Your task to perform on an android device: Go to eBay Image 0: 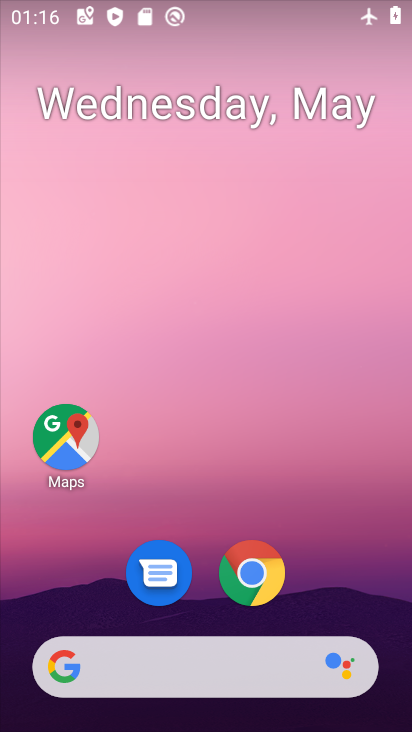
Step 0: click (269, 578)
Your task to perform on an android device: Go to eBay Image 1: 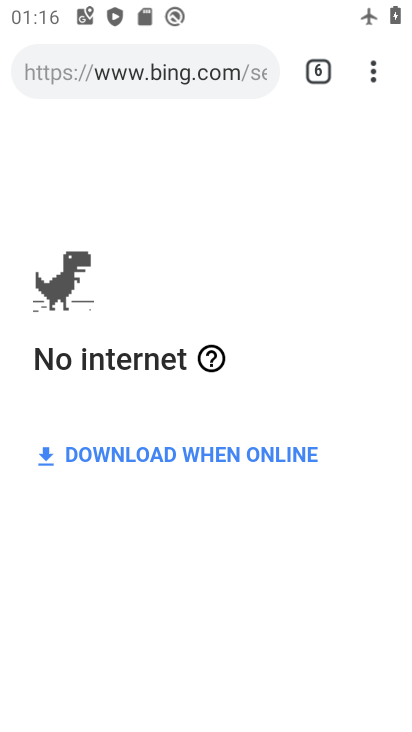
Step 1: click (372, 62)
Your task to perform on an android device: Go to eBay Image 2: 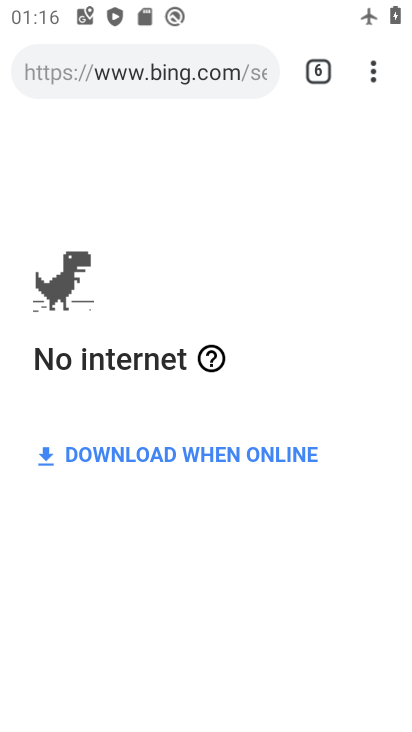
Step 2: click (371, 66)
Your task to perform on an android device: Go to eBay Image 3: 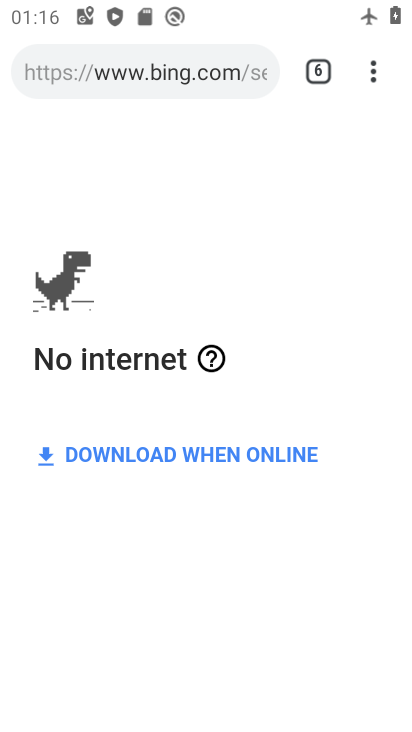
Step 3: click (347, 68)
Your task to perform on an android device: Go to eBay Image 4: 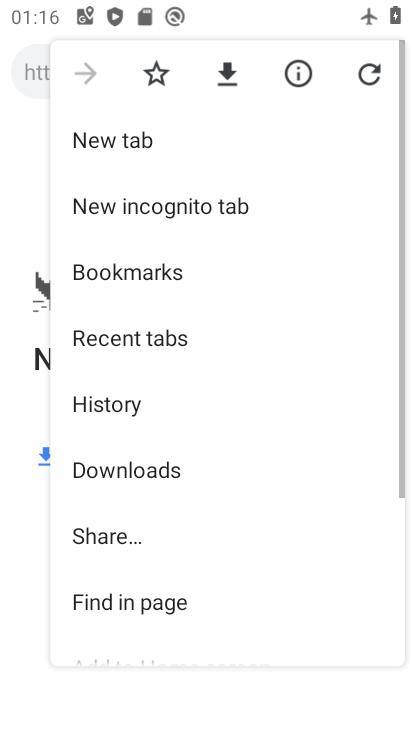
Step 4: click (148, 131)
Your task to perform on an android device: Go to eBay Image 5: 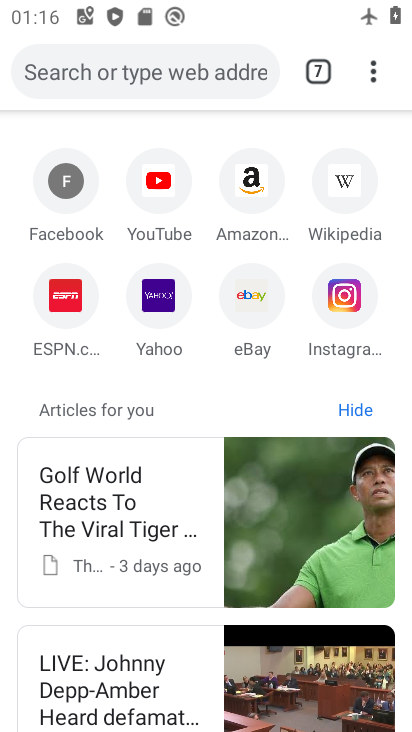
Step 5: click (264, 269)
Your task to perform on an android device: Go to eBay Image 6: 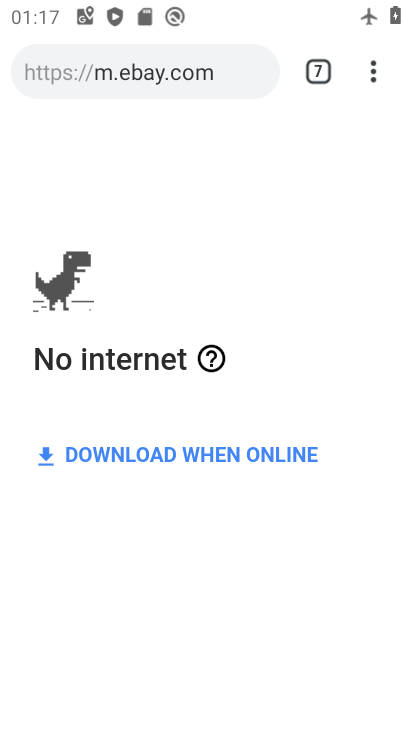
Step 6: task complete